Your task to perform on an android device: find photos in the google photos app Image 0: 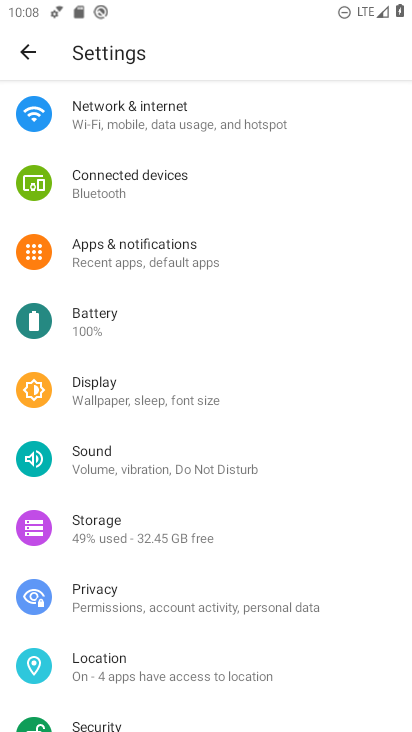
Step 0: press back button
Your task to perform on an android device: find photos in the google photos app Image 1: 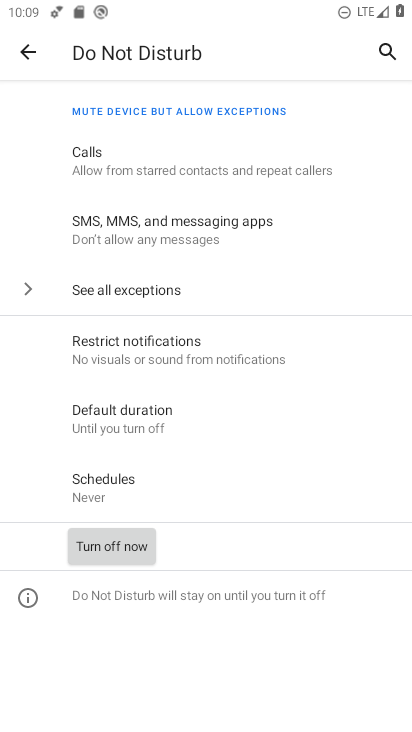
Step 1: press back button
Your task to perform on an android device: find photos in the google photos app Image 2: 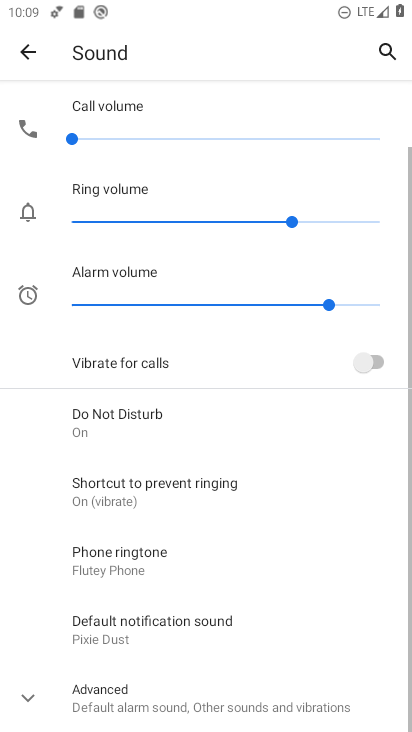
Step 2: press back button
Your task to perform on an android device: find photos in the google photos app Image 3: 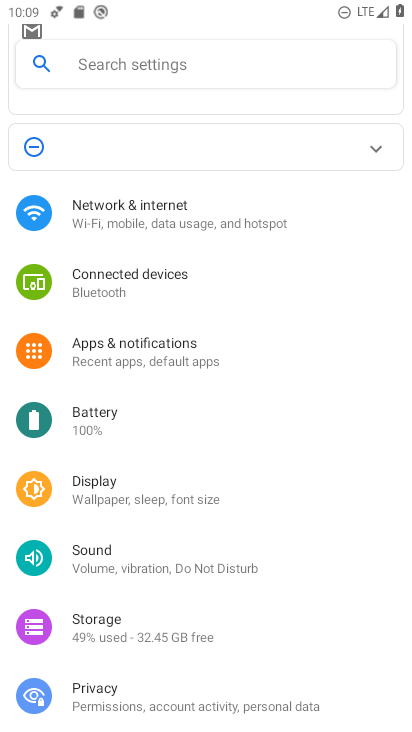
Step 3: press back button
Your task to perform on an android device: find photos in the google photos app Image 4: 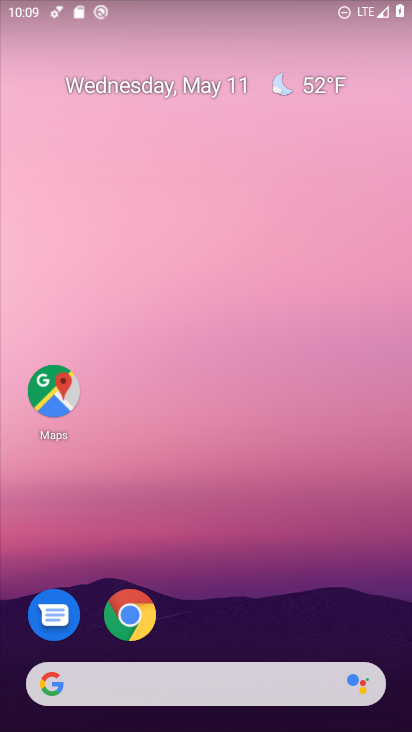
Step 4: drag from (256, 615) to (171, 49)
Your task to perform on an android device: find photos in the google photos app Image 5: 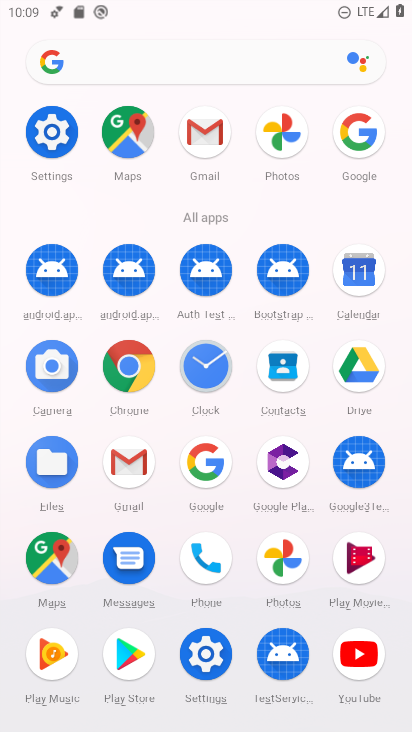
Step 5: click (278, 130)
Your task to perform on an android device: find photos in the google photos app Image 6: 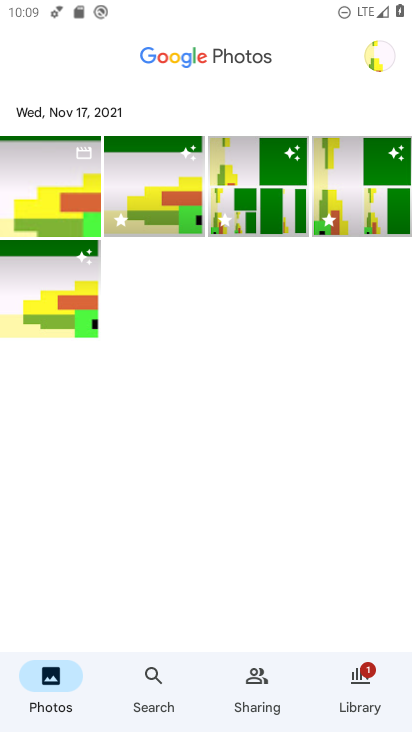
Step 6: click (147, 673)
Your task to perform on an android device: find photos in the google photos app Image 7: 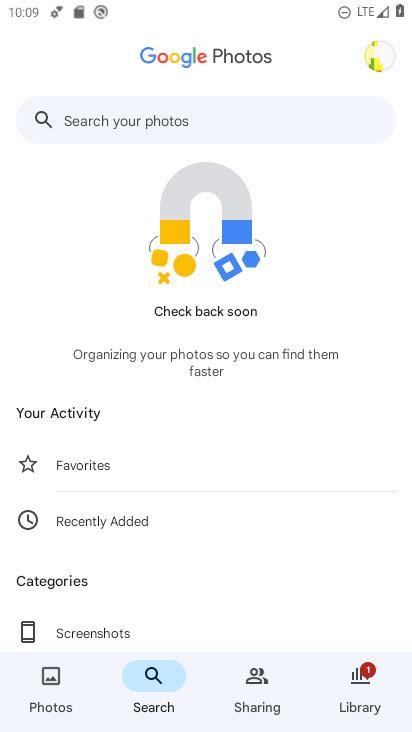
Step 7: click (89, 468)
Your task to perform on an android device: find photos in the google photos app Image 8: 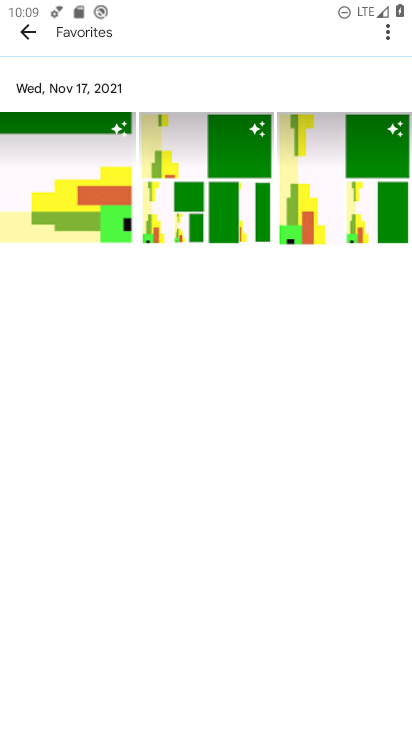
Step 8: click (80, 189)
Your task to perform on an android device: find photos in the google photos app Image 9: 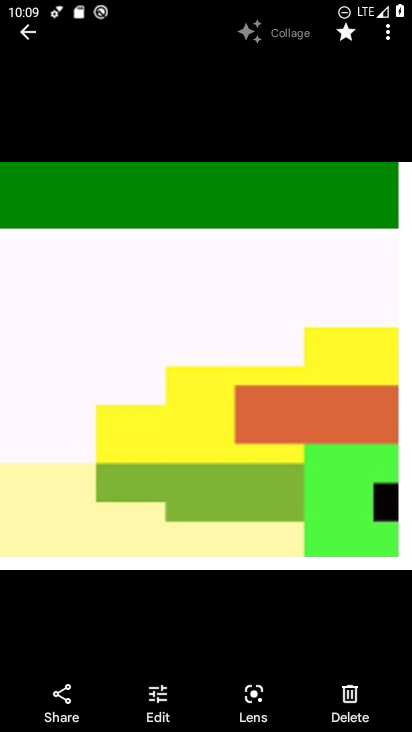
Step 9: task complete